Your task to perform on an android device: Show me the alarms in the clock app Image 0: 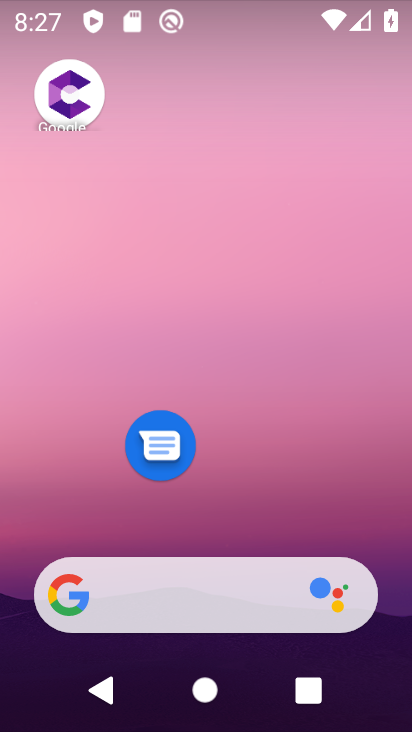
Step 0: drag from (269, 495) to (291, 58)
Your task to perform on an android device: Show me the alarms in the clock app Image 1: 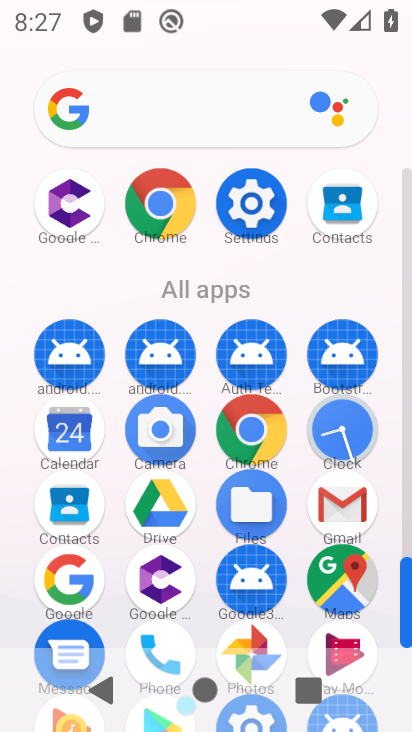
Step 1: click (340, 439)
Your task to perform on an android device: Show me the alarms in the clock app Image 2: 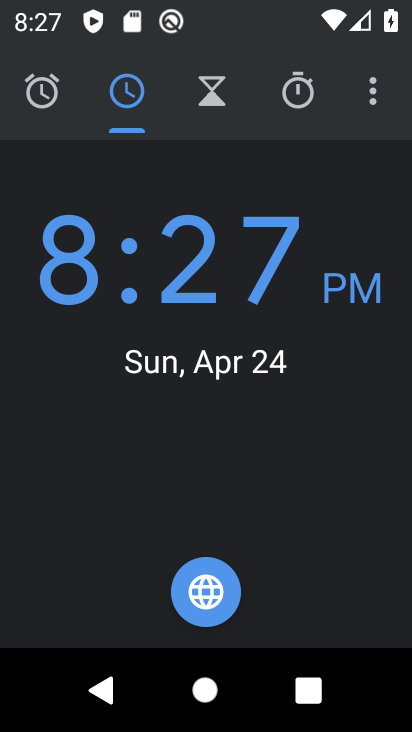
Step 2: click (43, 102)
Your task to perform on an android device: Show me the alarms in the clock app Image 3: 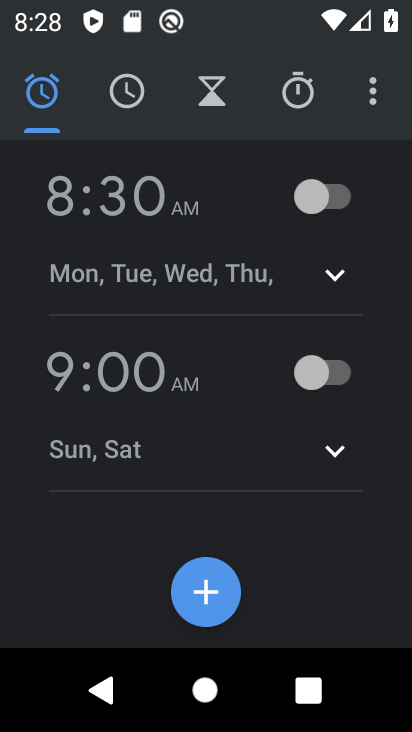
Step 3: task complete